Your task to perform on an android device: Turn off the flashlight Image 0: 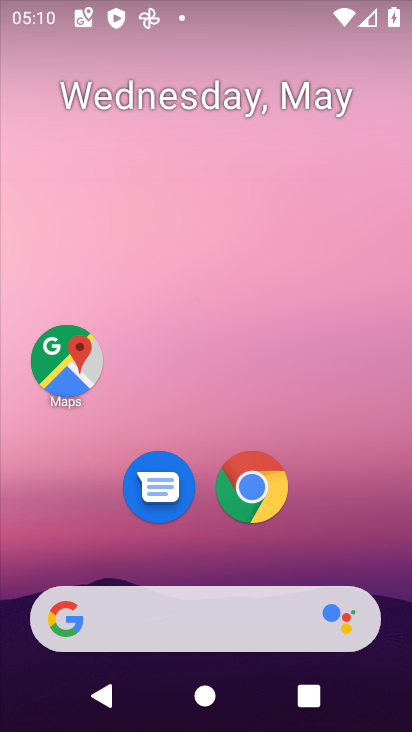
Step 0: drag from (342, 556) to (339, 210)
Your task to perform on an android device: Turn off the flashlight Image 1: 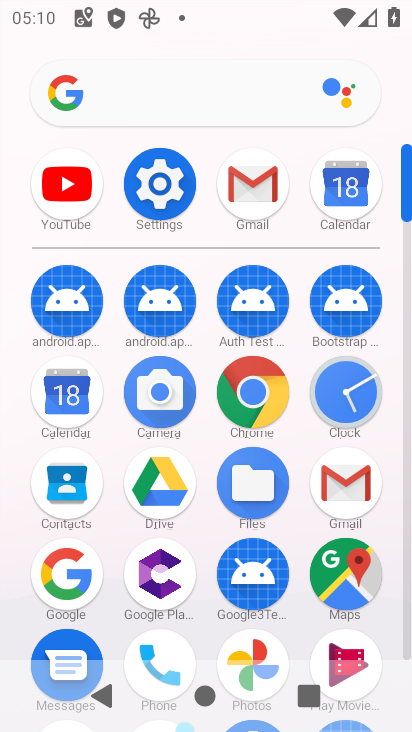
Step 1: click (145, 182)
Your task to perform on an android device: Turn off the flashlight Image 2: 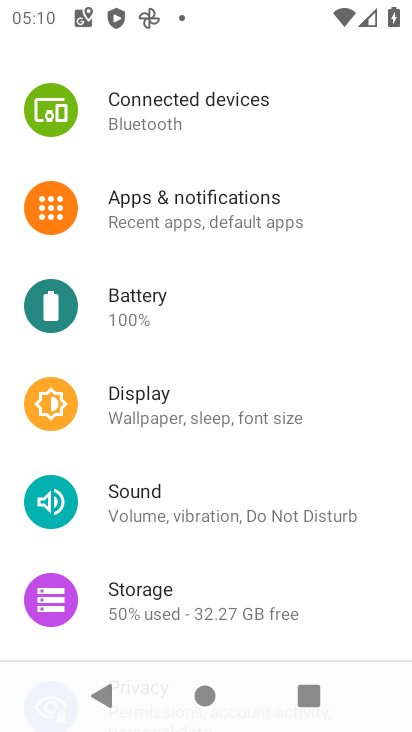
Step 2: drag from (187, 240) to (188, 519)
Your task to perform on an android device: Turn off the flashlight Image 3: 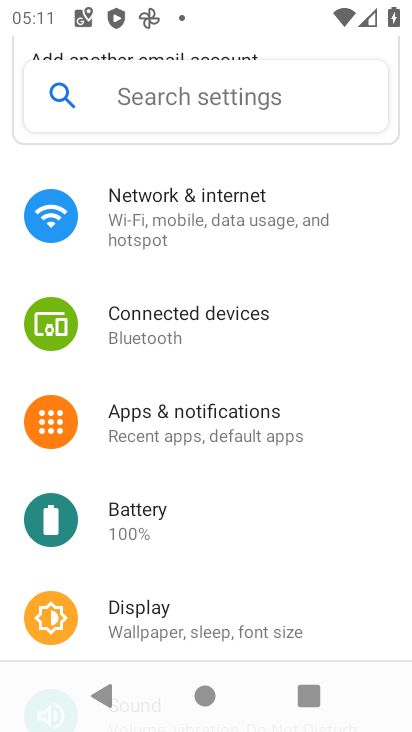
Step 3: click (207, 472)
Your task to perform on an android device: Turn off the flashlight Image 4: 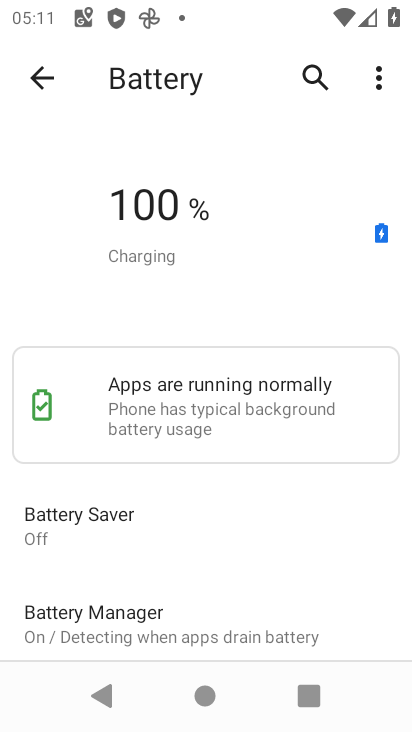
Step 4: task complete